Your task to perform on an android device: Go to Wikipedia Image 0: 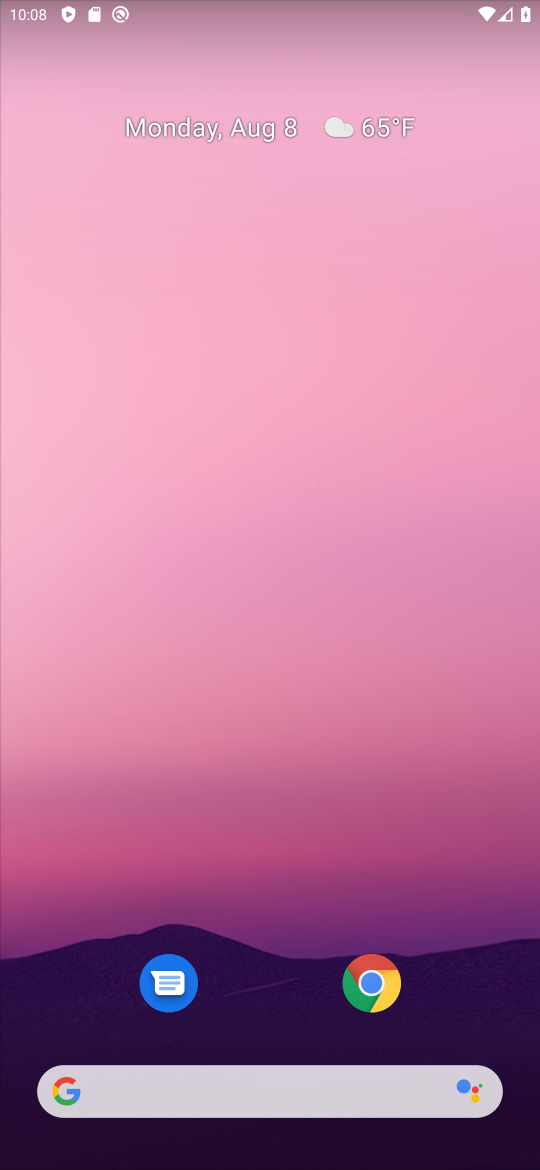
Step 0: drag from (293, 1046) to (373, 322)
Your task to perform on an android device: Go to Wikipedia Image 1: 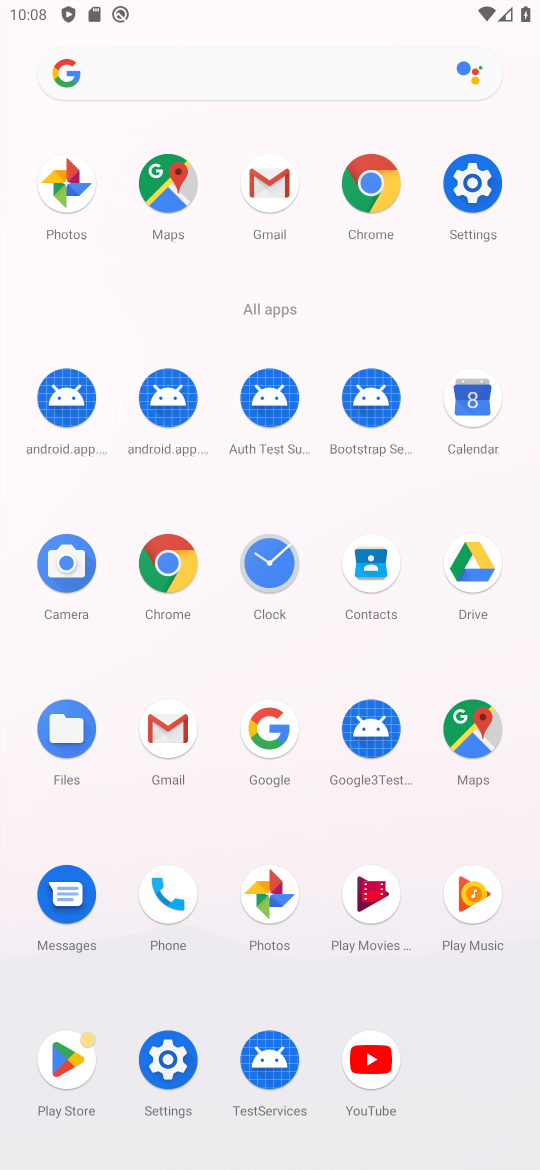
Step 1: click (380, 225)
Your task to perform on an android device: Go to Wikipedia Image 2: 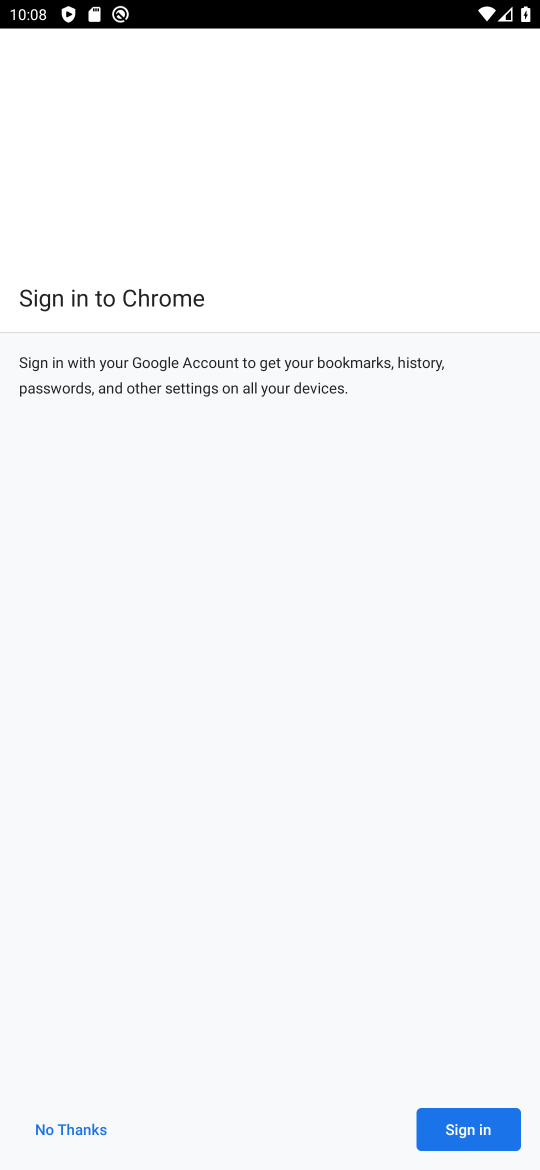
Step 2: click (460, 1104)
Your task to perform on an android device: Go to Wikipedia Image 3: 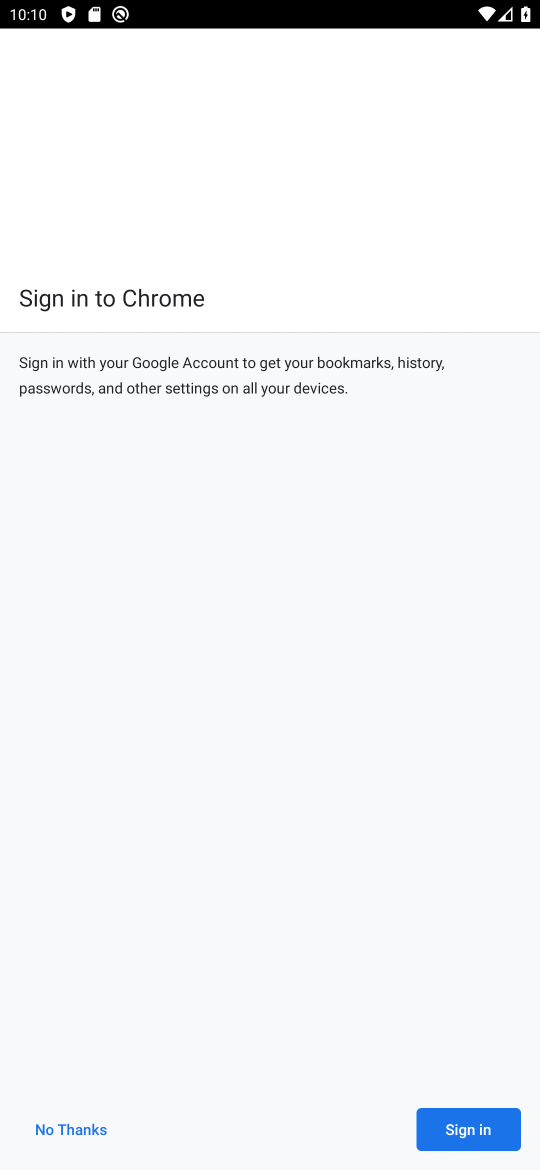
Step 3: task complete